Your task to perform on an android device: Open the calendar and show me this week's events? Image 0: 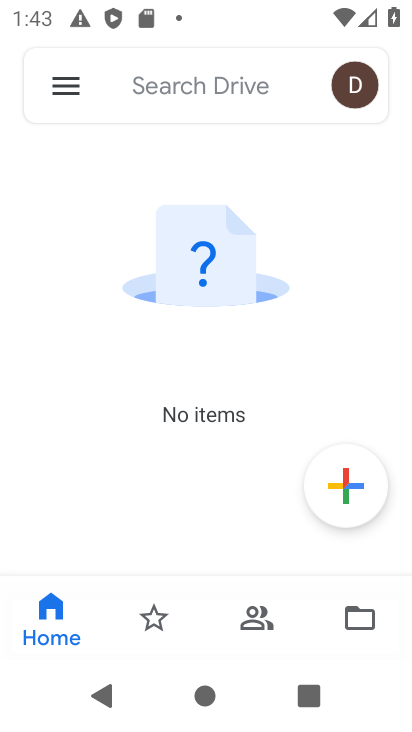
Step 0: press home button
Your task to perform on an android device: Open the calendar and show me this week's events? Image 1: 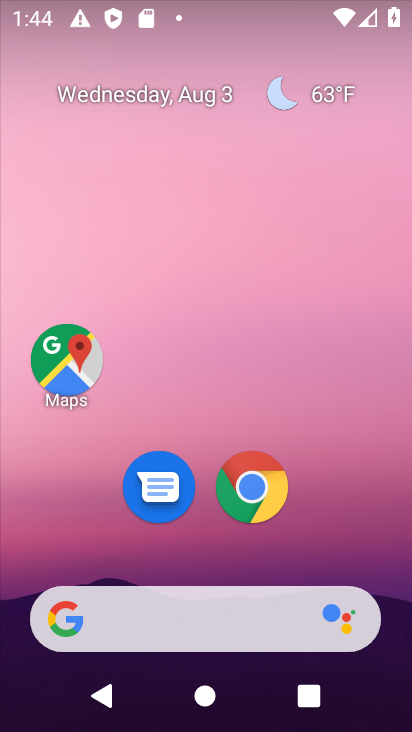
Step 1: drag from (354, 529) to (410, 301)
Your task to perform on an android device: Open the calendar and show me this week's events? Image 2: 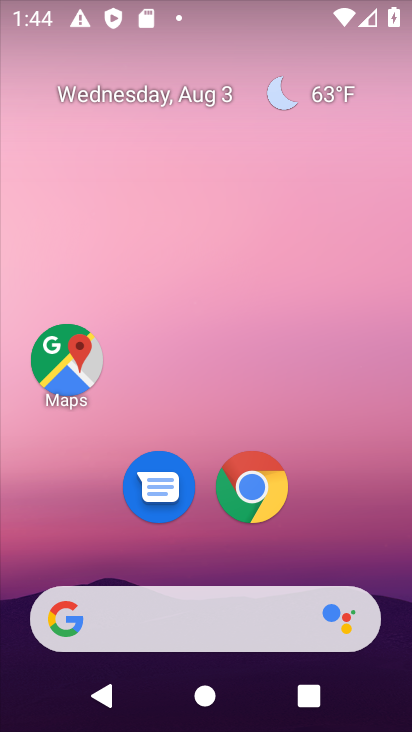
Step 2: drag from (326, 520) to (297, 37)
Your task to perform on an android device: Open the calendar and show me this week's events? Image 3: 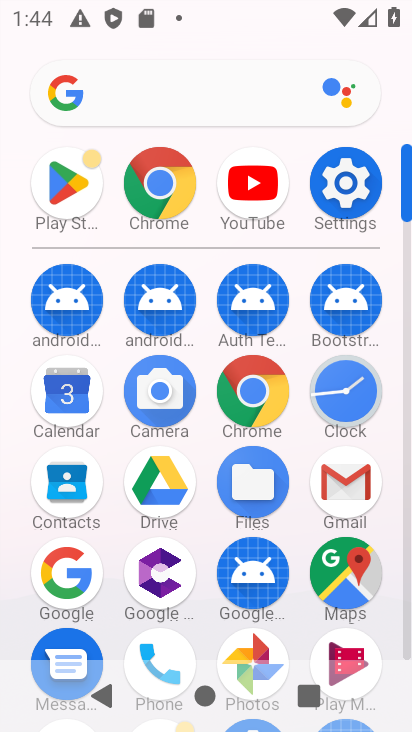
Step 3: click (63, 389)
Your task to perform on an android device: Open the calendar and show me this week's events? Image 4: 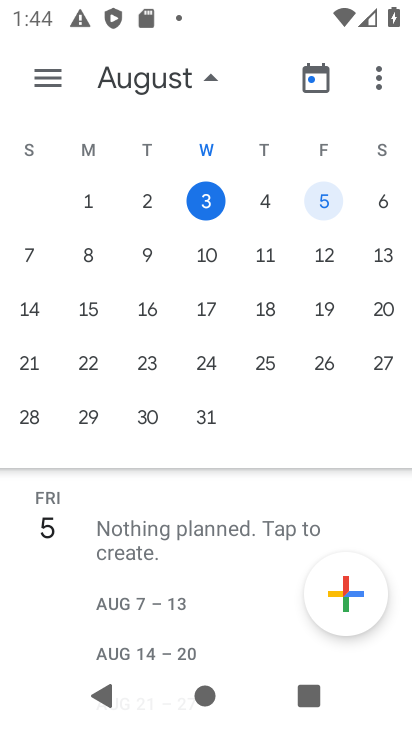
Step 4: click (318, 192)
Your task to perform on an android device: Open the calendar and show me this week's events? Image 5: 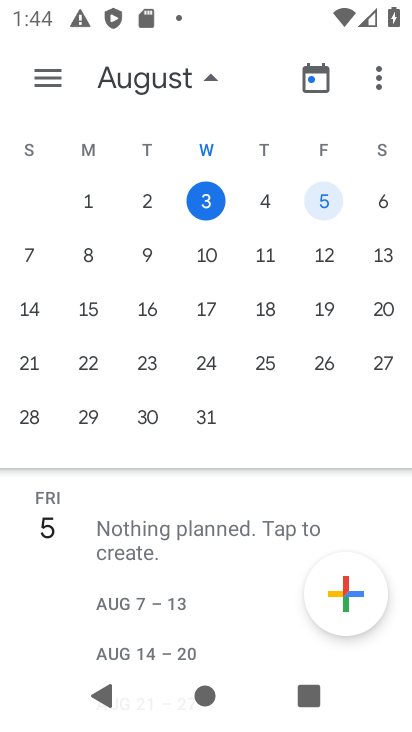
Step 5: click (381, 195)
Your task to perform on an android device: Open the calendar and show me this week's events? Image 6: 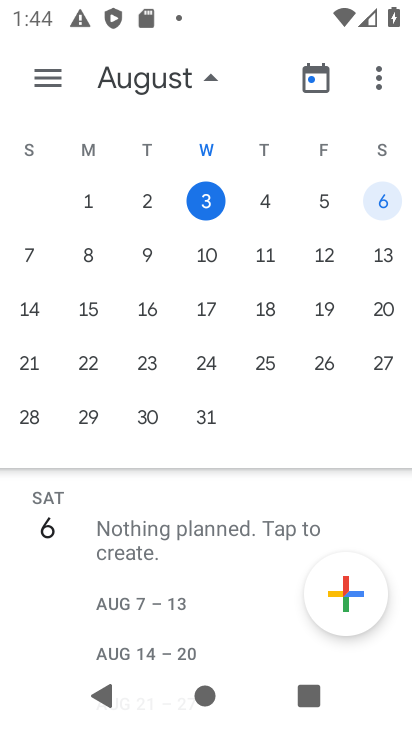
Step 6: click (32, 239)
Your task to perform on an android device: Open the calendar and show me this week's events? Image 7: 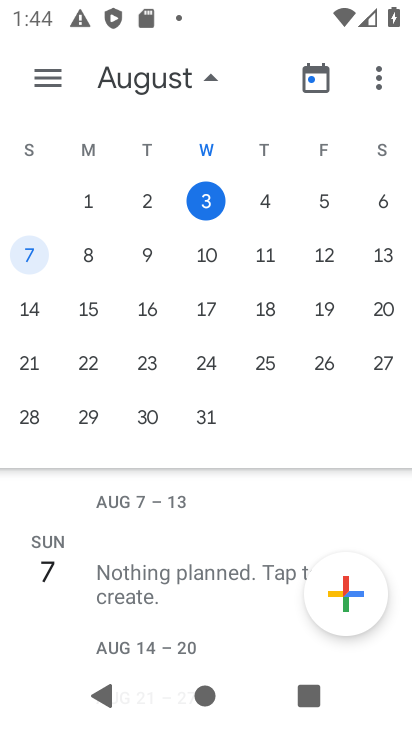
Step 7: task complete